Your task to perform on an android device: Open accessibility settings Image 0: 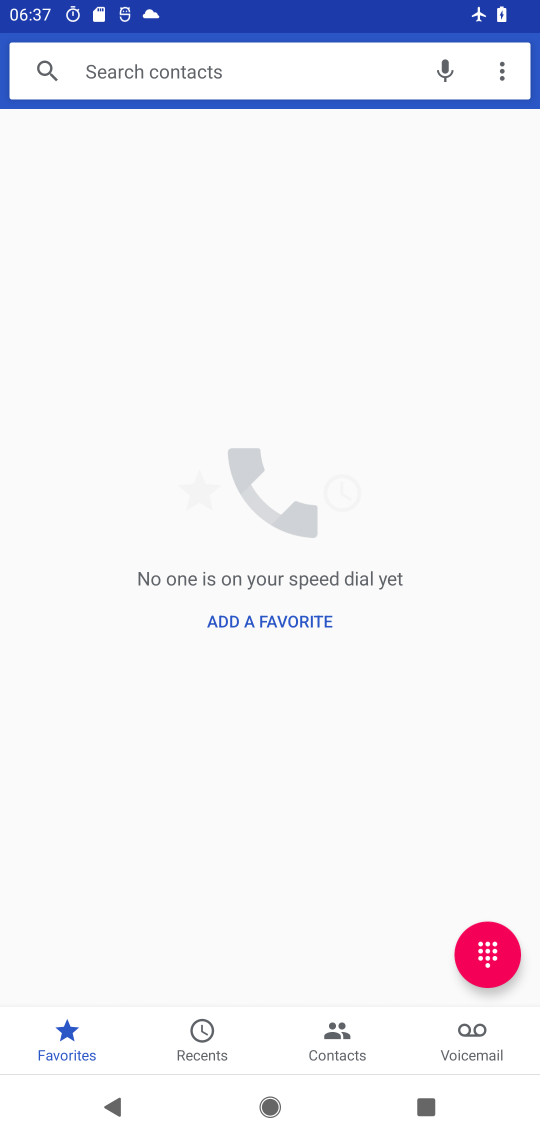
Step 0: press home button
Your task to perform on an android device: Open accessibility settings Image 1: 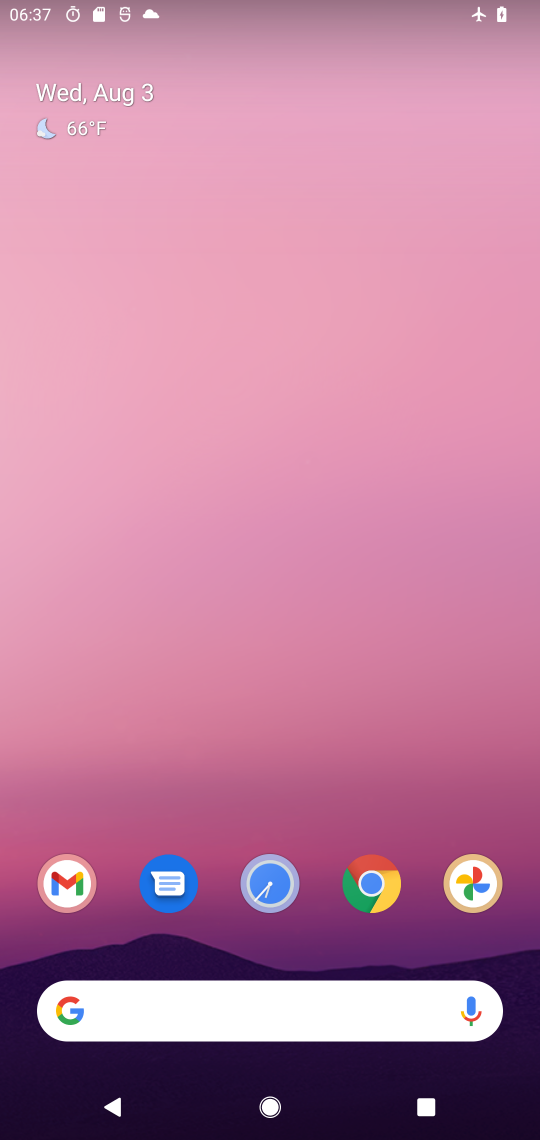
Step 1: drag from (227, 834) to (254, 320)
Your task to perform on an android device: Open accessibility settings Image 2: 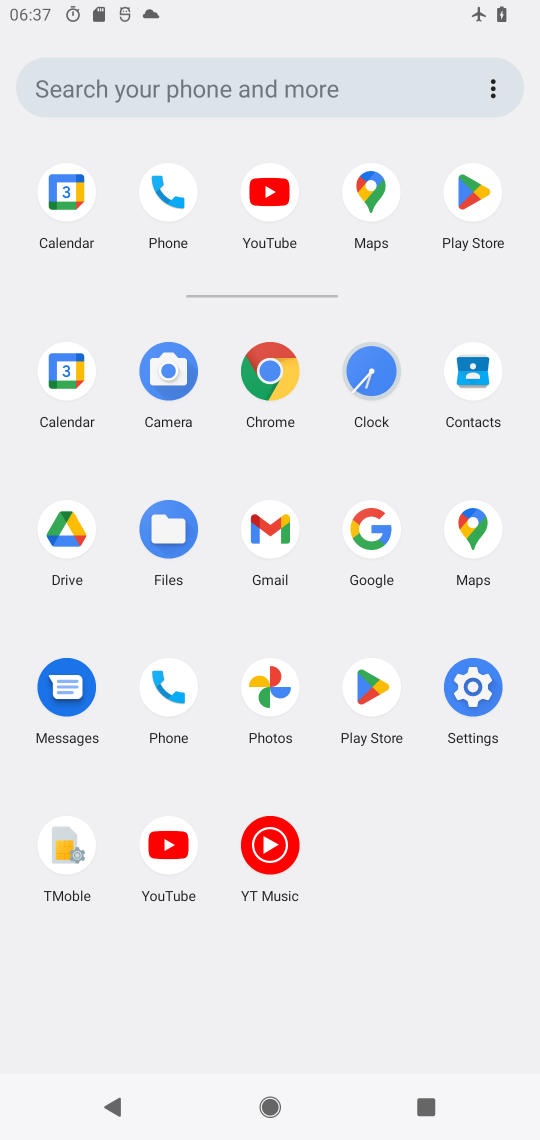
Step 2: click (478, 696)
Your task to perform on an android device: Open accessibility settings Image 3: 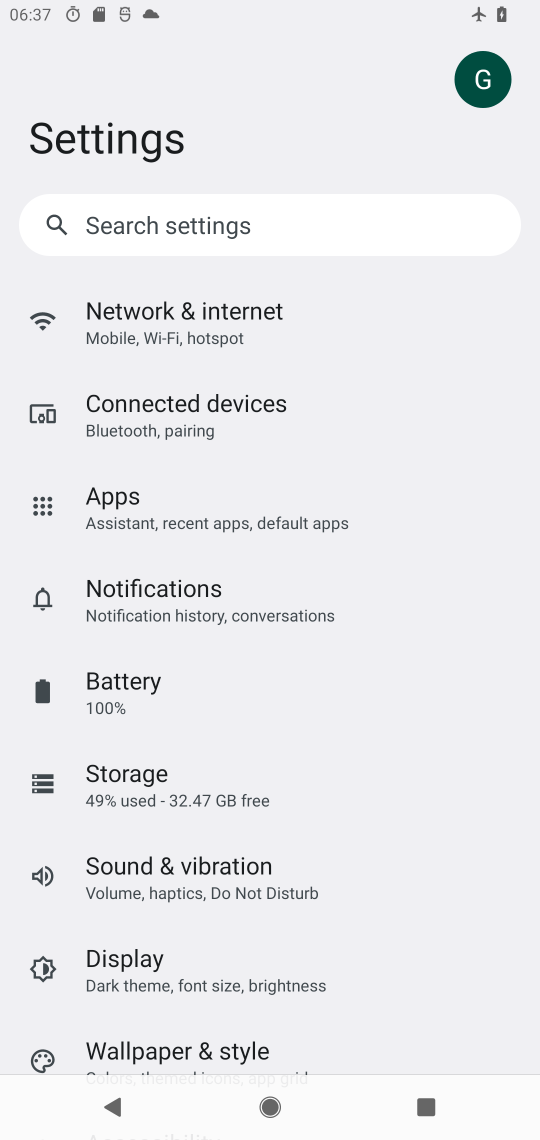
Step 3: drag from (246, 1025) to (294, 420)
Your task to perform on an android device: Open accessibility settings Image 4: 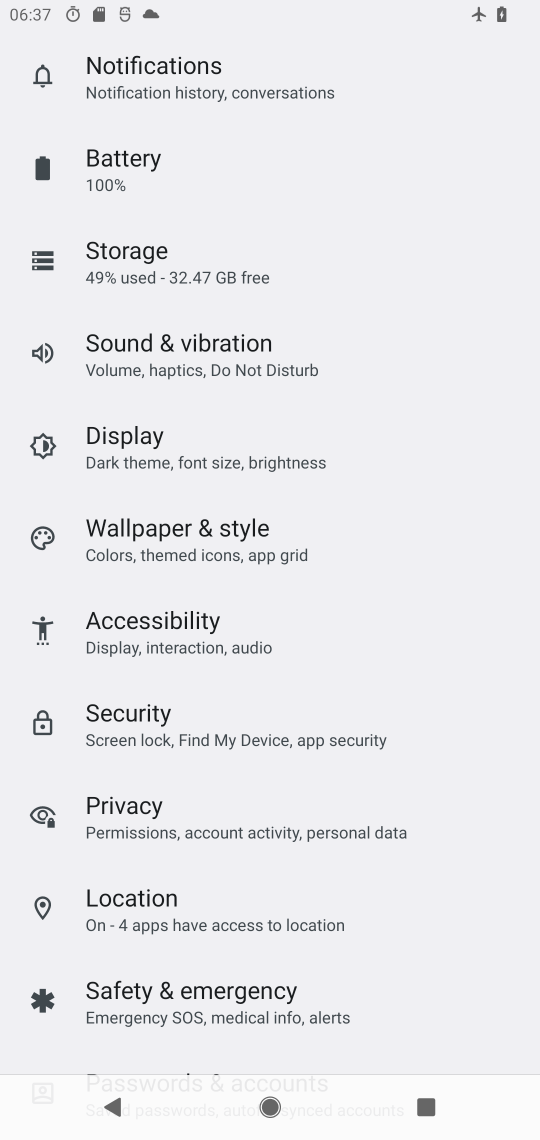
Step 4: click (162, 630)
Your task to perform on an android device: Open accessibility settings Image 5: 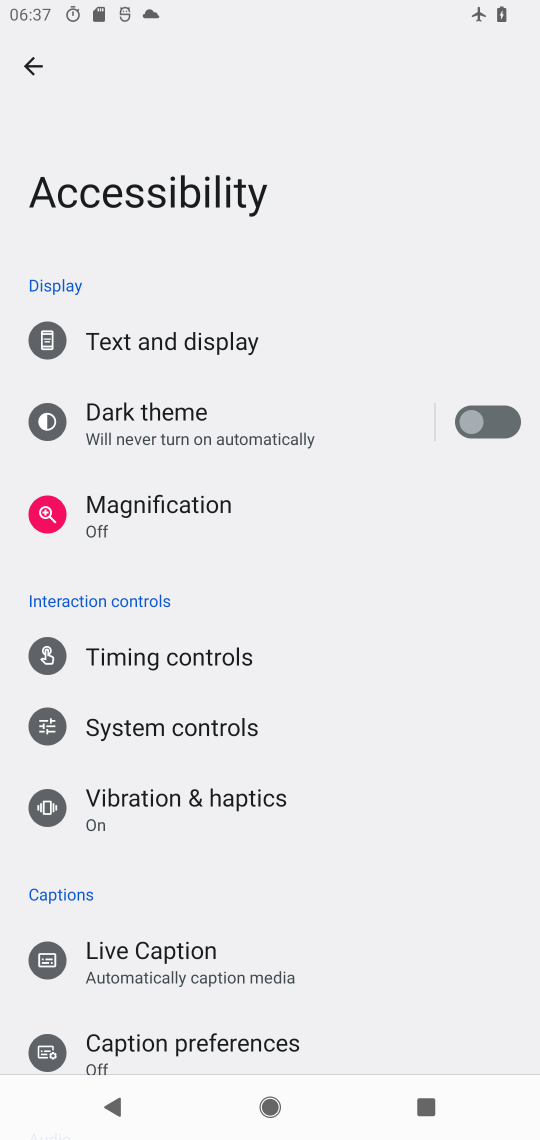
Step 5: task complete